Your task to perform on an android device: Search for vegetarian restaurants on Maps Image 0: 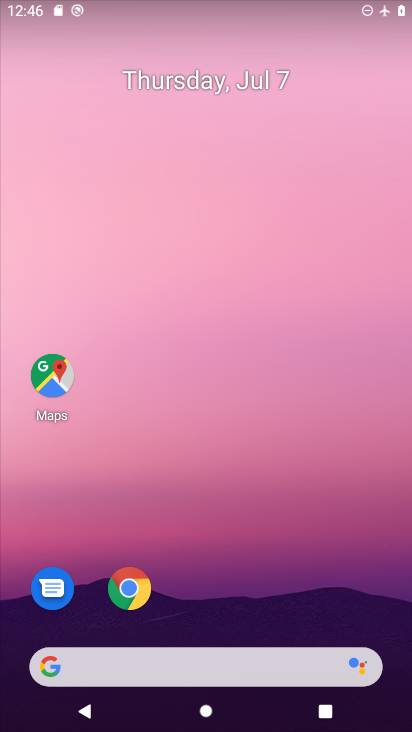
Step 0: drag from (326, 656) to (351, 35)
Your task to perform on an android device: Search for vegetarian restaurants on Maps Image 1: 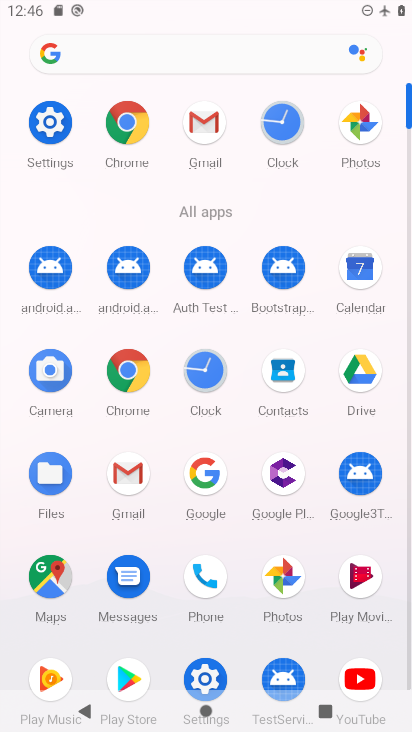
Step 1: click (40, 569)
Your task to perform on an android device: Search for vegetarian restaurants on Maps Image 2: 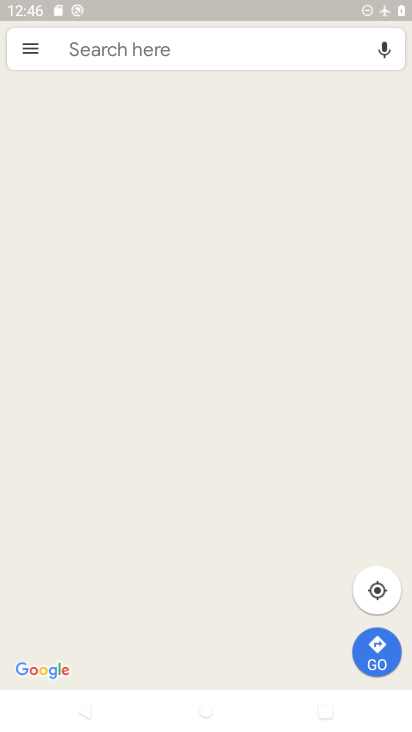
Step 2: click (186, 58)
Your task to perform on an android device: Search for vegetarian restaurants on Maps Image 3: 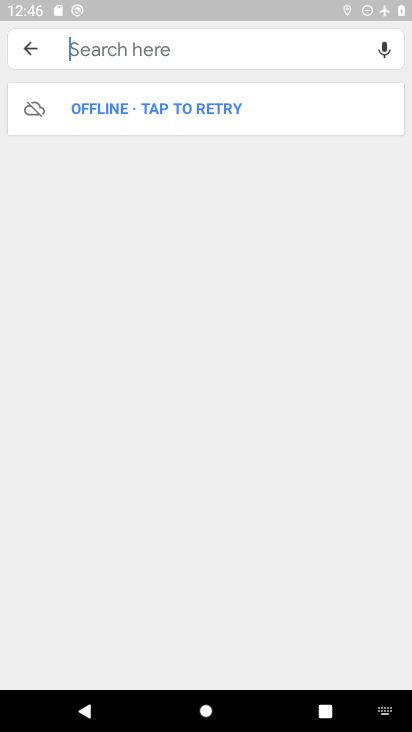
Step 3: type "vegetarian restautrant"
Your task to perform on an android device: Search for vegetarian restaurants on Maps Image 4: 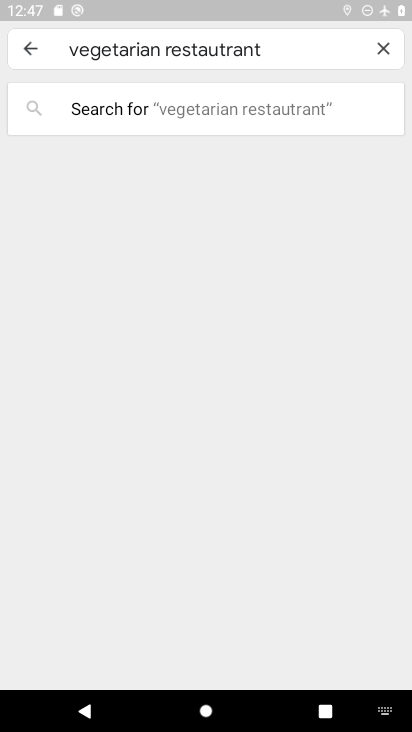
Step 4: task complete